Your task to perform on an android device: turn pop-ups off in chrome Image 0: 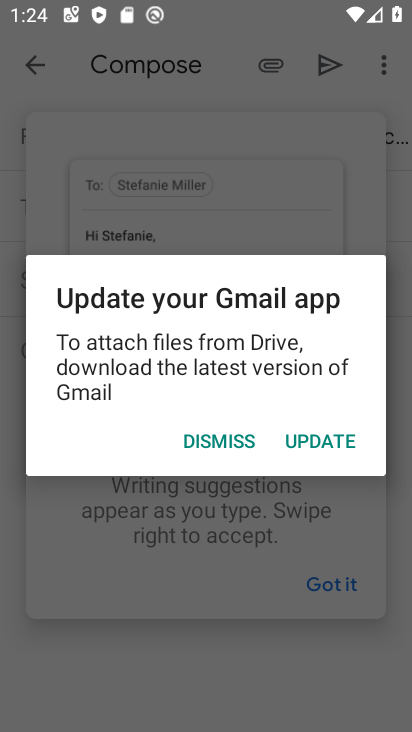
Step 0: press back button
Your task to perform on an android device: turn pop-ups off in chrome Image 1: 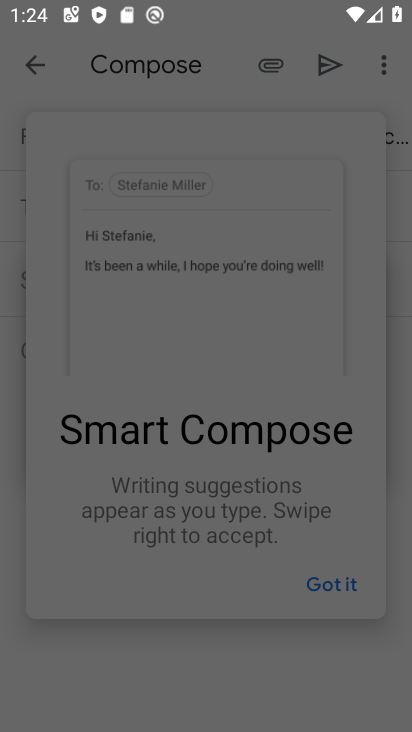
Step 1: press home button
Your task to perform on an android device: turn pop-ups off in chrome Image 2: 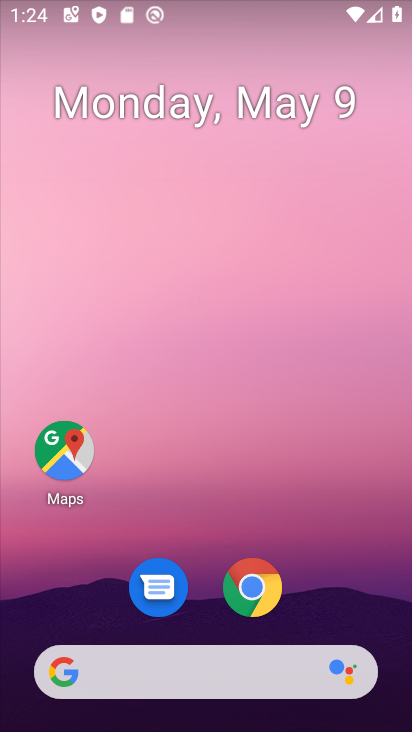
Step 2: click (268, 588)
Your task to perform on an android device: turn pop-ups off in chrome Image 3: 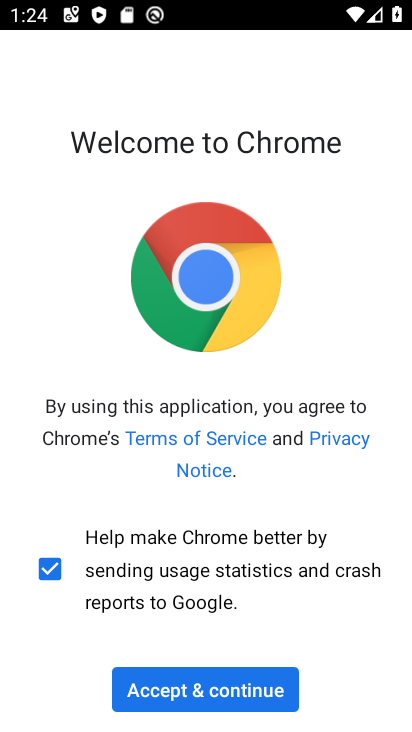
Step 3: click (260, 687)
Your task to perform on an android device: turn pop-ups off in chrome Image 4: 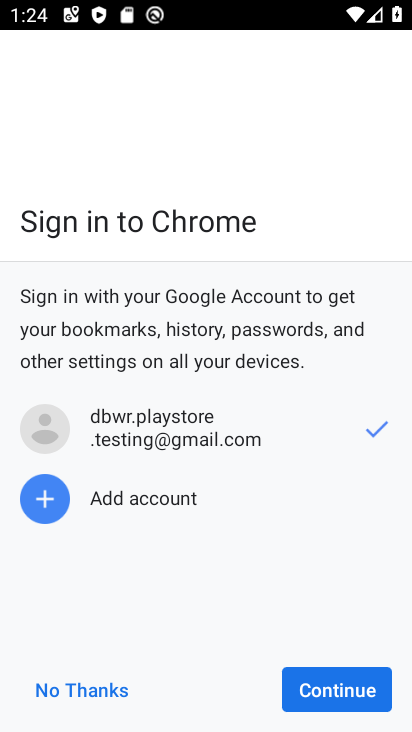
Step 4: click (298, 694)
Your task to perform on an android device: turn pop-ups off in chrome Image 5: 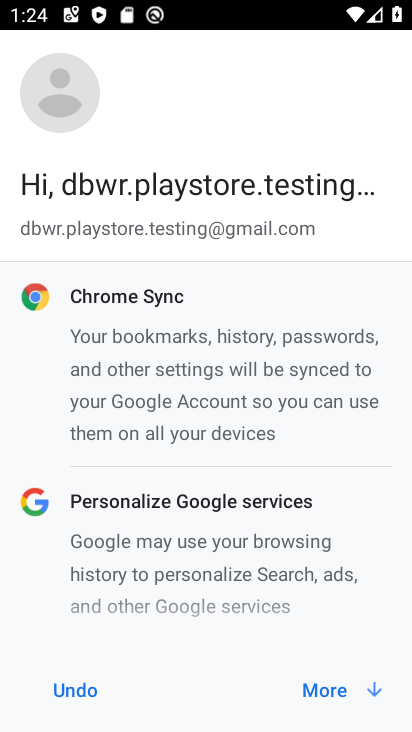
Step 5: click (298, 694)
Your task to perform on an android device: turn pop-ups off in chrome Image 6: 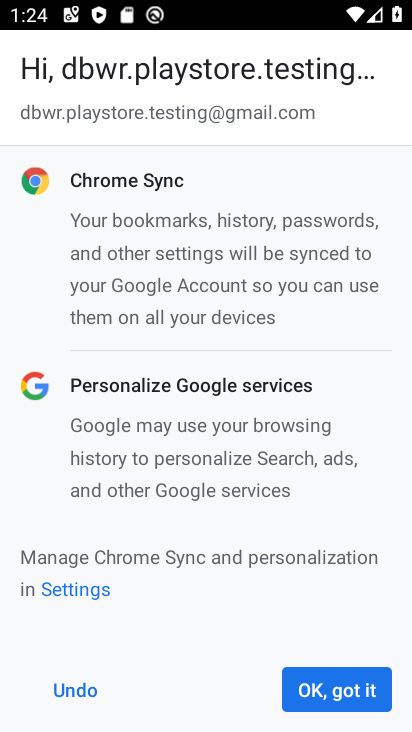
Step 6: click (298, 694)
Your task to perform on an android device: turn pop-ups off in chrome Image 7: 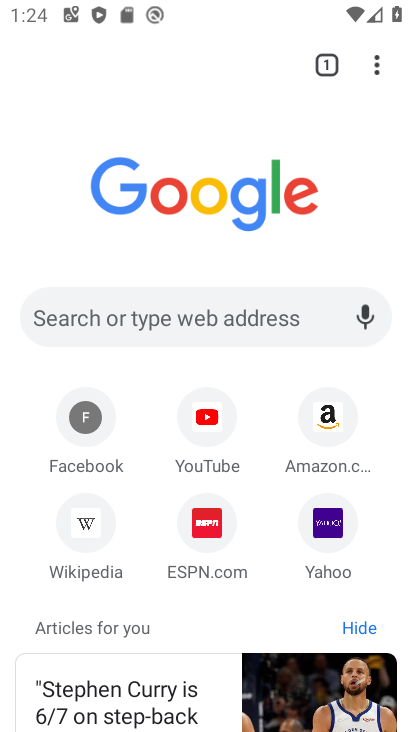
Step 7: drag from (377, 73) to (231, 525)
Your task to perform on an android device: turn pop-ups off in chrome Image 8: 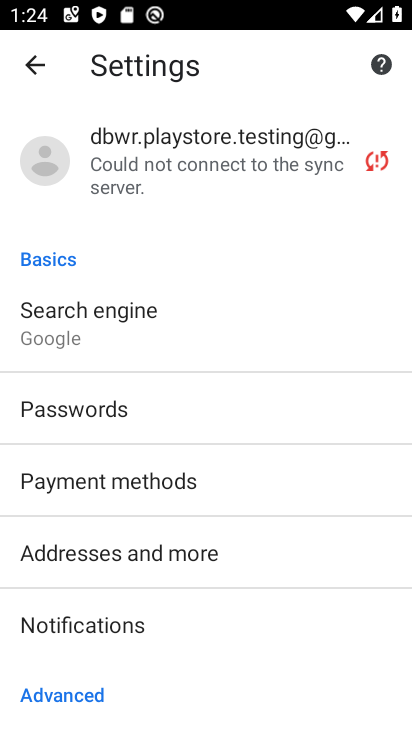
Step 8: drag from (233, 553) to (241, 422)
Your task to perform on an android device: turn pop-ups off in chrome Image 9: 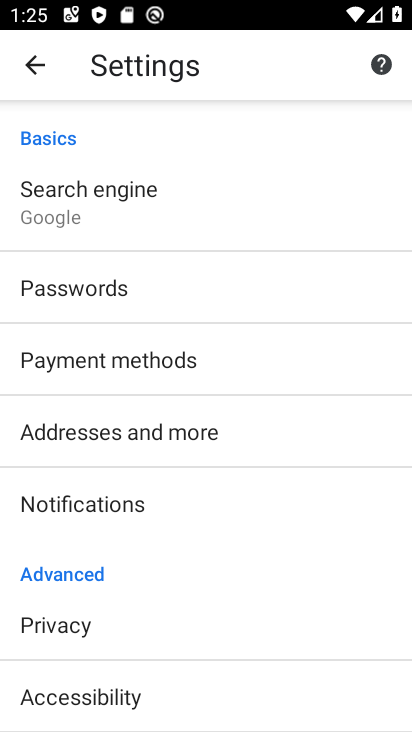
Step 9: drag from (266, 670) to (310, 463)
Your task to perform on an android device: turn pop-ups off in chrome Image 10: 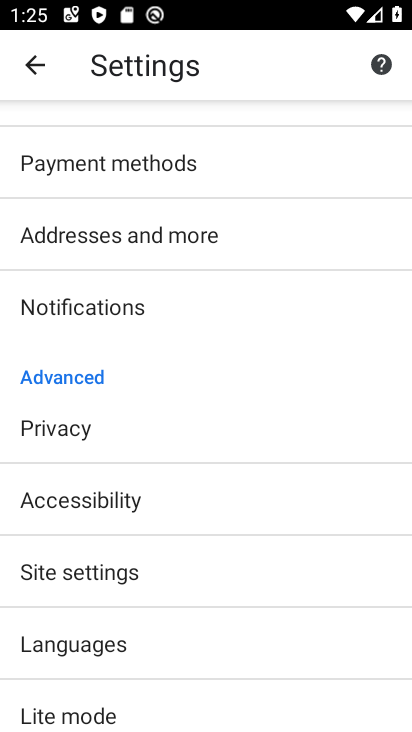
Step 10: click (192, 587)
Your task to perform on an android device: turn pop-ups off in chrome Image 11: 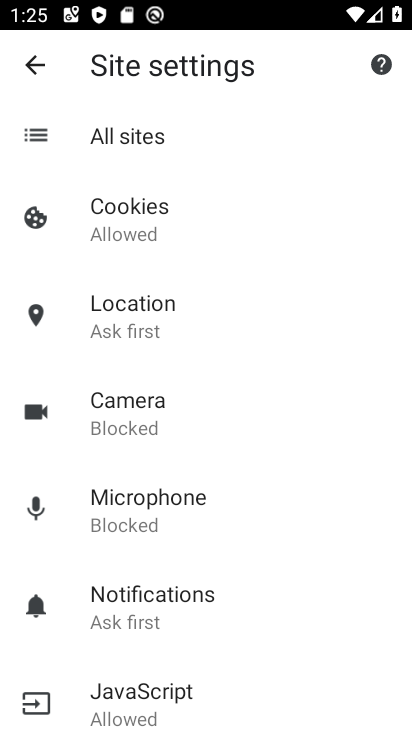
Step 11: drag from (206, 674) to (230, 491)
Your task to perform on an android device: turn pop-ups off in chrome Image 12: 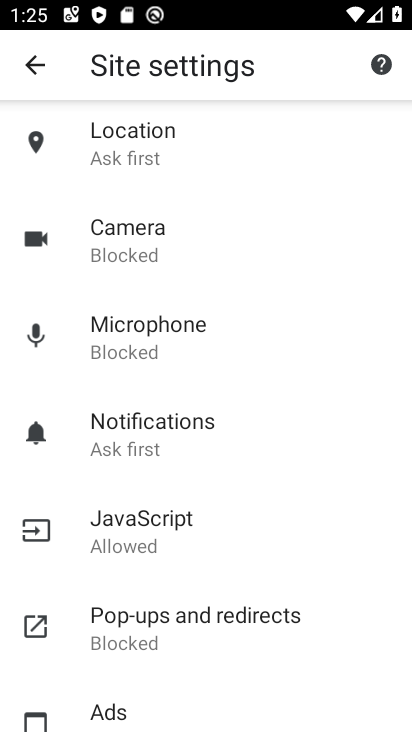
Step 12: drag from (234, 654) to (270, 483)
Your task to perform on an android device: turn pop-ups off in chrome Image 13: 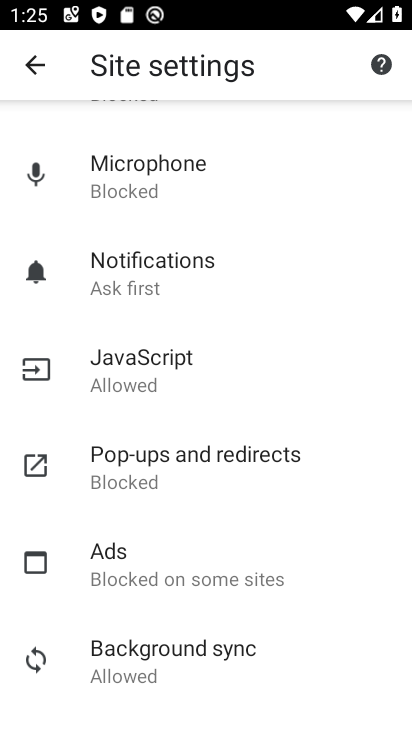
Step 13: drag from (160, 666) to (199, 543)
Your task to perform on an android device: turn pop-ups off in chrome Image 14: 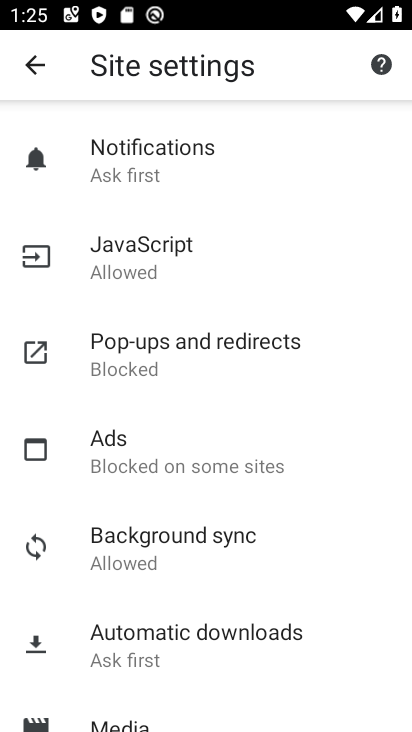
Step 14: drag from (178, 645) to (194, 555)
Your task to perform on an android device: turn pop-ups off in chrome Image 15: 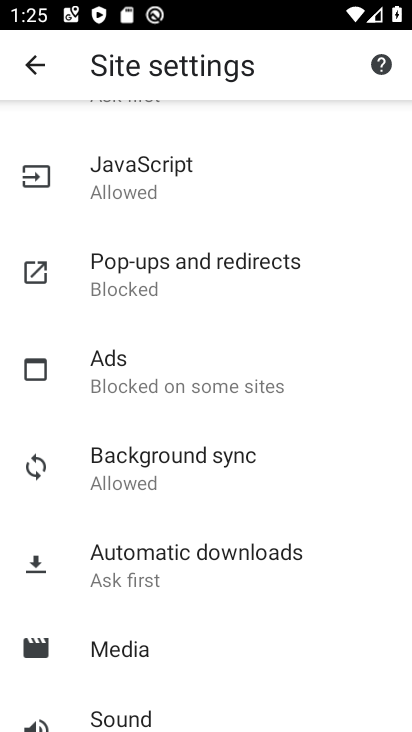
Step 15: drag from (223, 693) to (269, 445)
Your task to perform on an android device: turn pop-ups off in chrome Image 16: 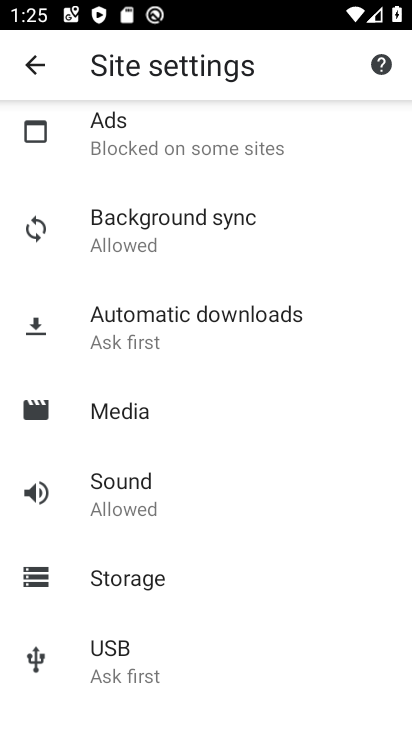
Step 16: drag from (281, 208) to (235, 639)
Your task to perform on an android device: turn pop-ups off in chrome Image 17: 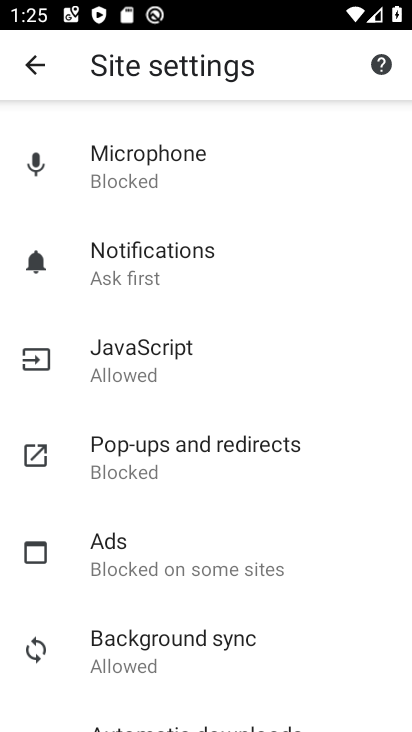
Step 17: drag from (264, 118) to (268, 464)
Your task to perform on an android device: turn pop-ups off in chrome Image 18: 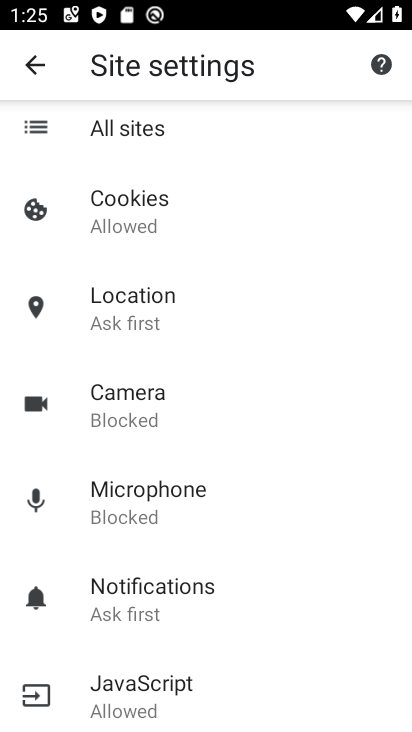
Step 18: drag from (258, 637) to (280, 474)
Your task to perform on an android device: turn pop-ups off in chrome Image 19: 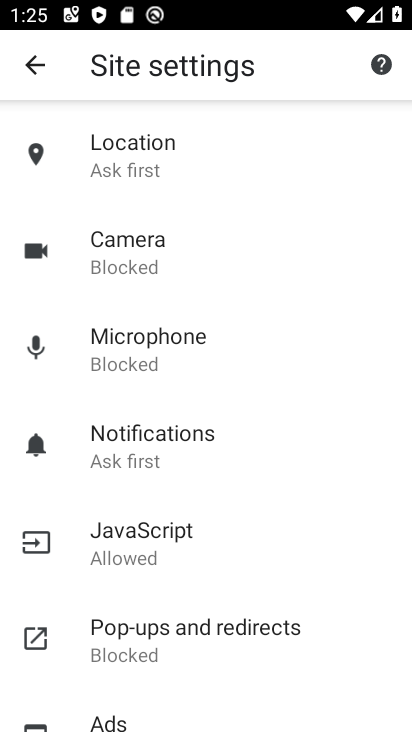
Step 19: click (231, 641)
Your task to perform on an android device: turn pop-ups off in chrome Image 20: 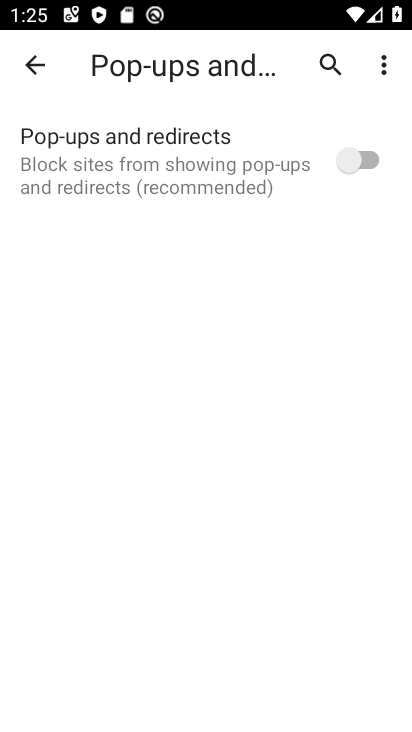
Step 20: task complete